Your task to perform on an android device: Open Google Maps and go to "Timeline" Image 0: 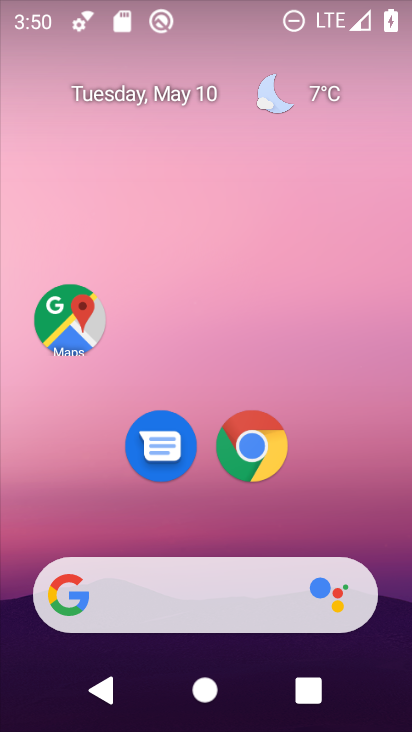
Step 0: click (74, 309)
Your task to perform on an android device: Open Google Maps and go to "Timeline" Image 1: 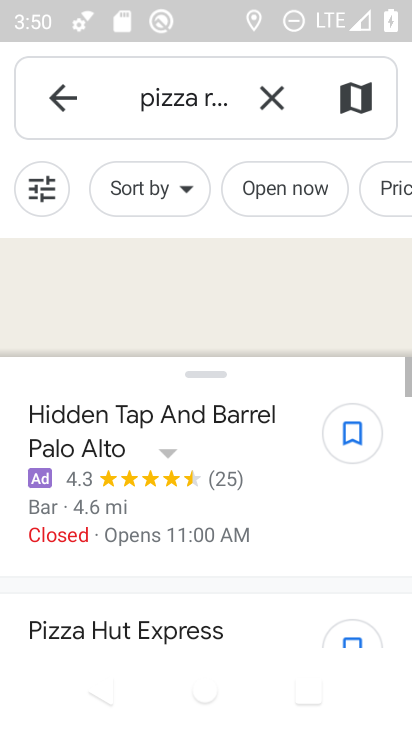
Step 1: click (271, 96)
Your task to perform on an android device: Open Google Maps and go to "Timeline" Image 2: 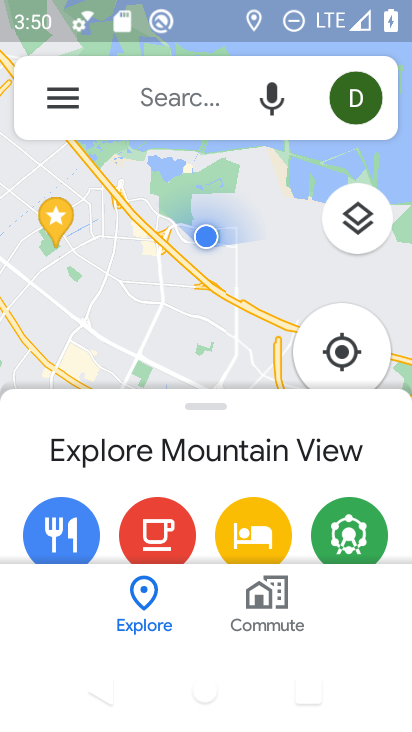
Step 2: click (47, 93)
Your task to perform on an android device: Open Google Maps and go to "Timeline" Image 3: 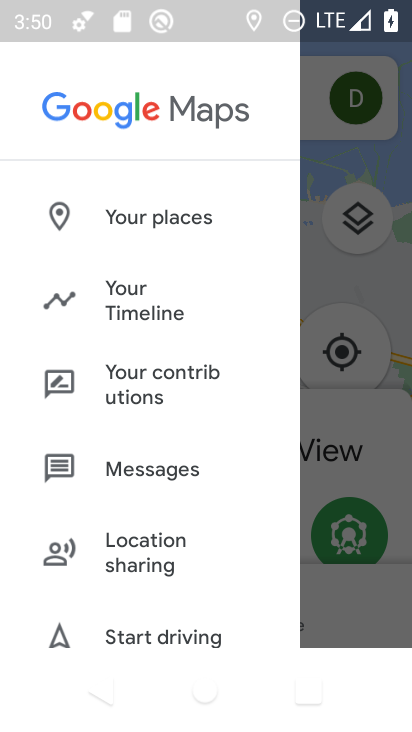
Step 3: click (155, 302)
Your task to perform on an android device: Open Google Maps and go to "Timeline" Image 4: 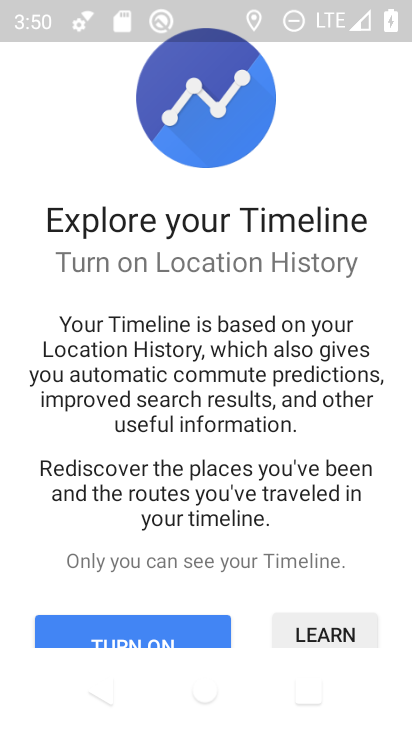
Step 4: click (173, 632)
Your task to perform on an android device: Open Google Maps and go to "Timeline" Image 5: 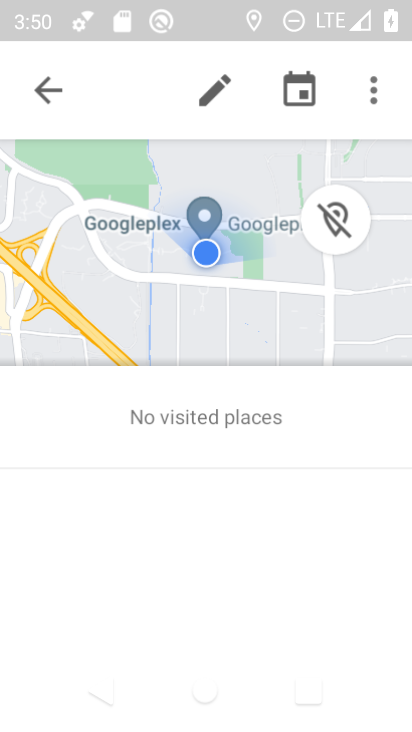
Step 5: task complete